Your task to perform on an android device: open the mobile data screen to see how much data has been used Image 0: 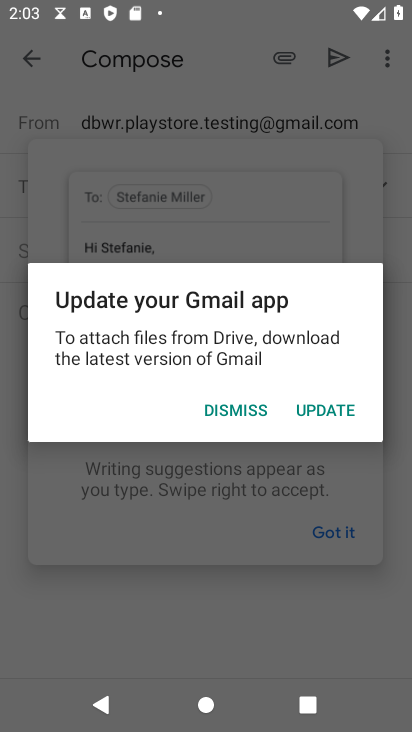
Step 0: press home button
Your task to perform on an android device: open the mobile data screen to see how much data has been used Image 1: 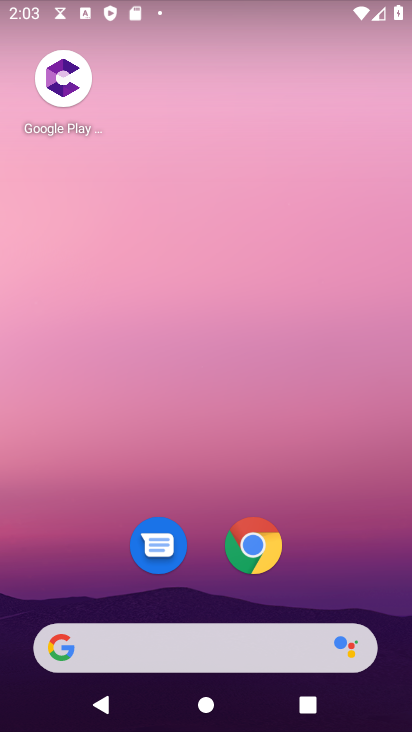
Step 1: drag from (189, 557) to (112, 53)
Your task to perform on an android device: open the mobile data screen to see how much data has been used Image 2: 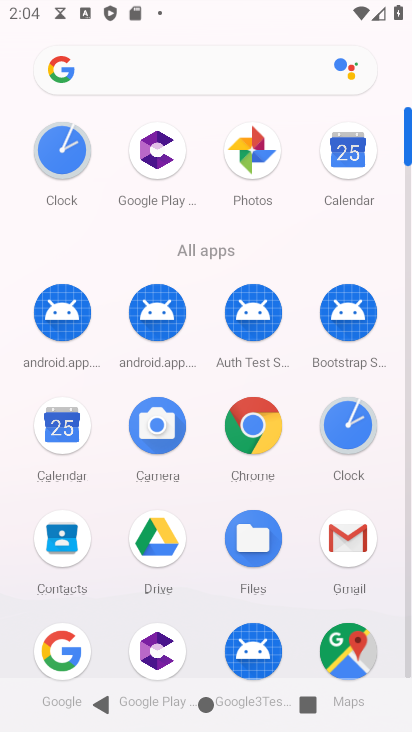
Step 2: drag from (169, 421) to (10, 12)
Your task to perform on an android device: open the mobile data screen to see how much data has been used Image 3: 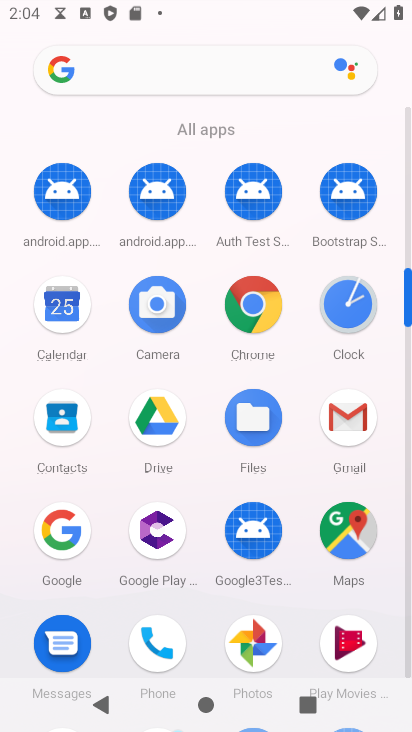
Step 3: drag from (209, 591) to (178, 161)
Your task to perform on an android device: open the mobile data screen to see how much data has been used Image 4: 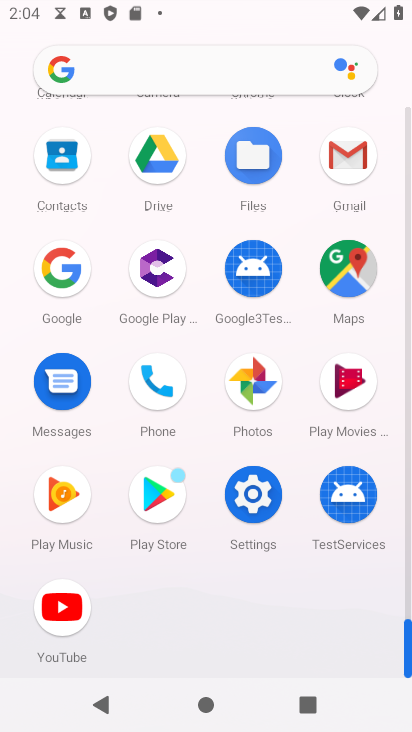
Step 4: click (263, 505)
Your task to perform on an android device: open the mobile data screen to see how much data has been used Image 5: 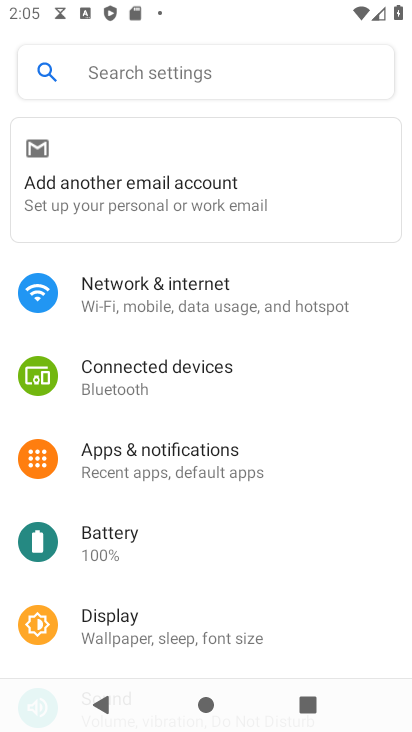
Step 5: click (173, 299)
Your task to perform on an android device: open the mobile data screen to see how much data has been used Image 6: 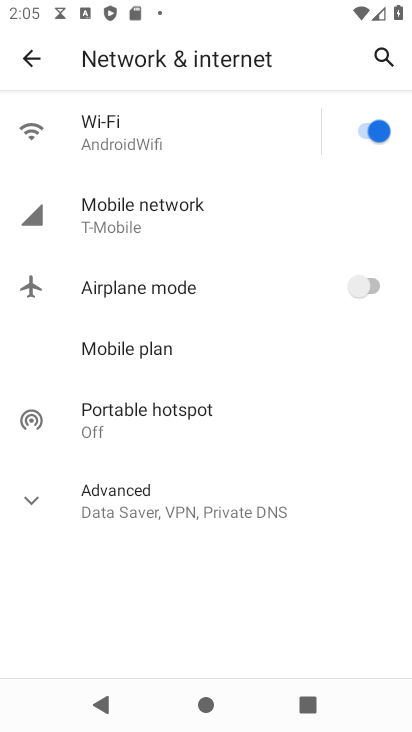
Step 6: click (102, 227)
Your task to perform on an android device: open the mobile data screen to see how much data has been used Image 7: 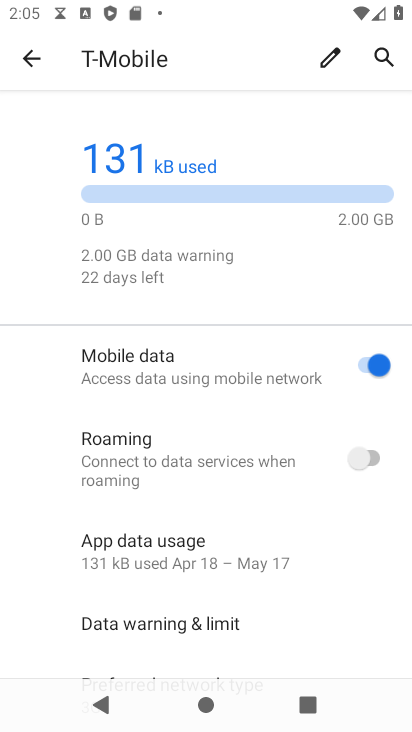
Step 7: task complete